Your task to perform on an android device: move a message to another label in the gmail app Image 0: 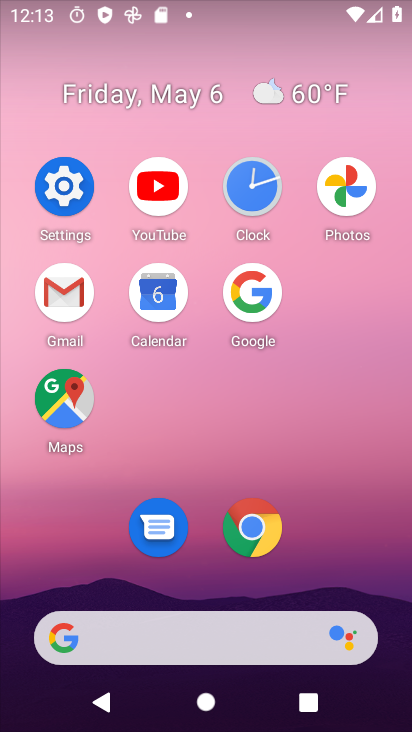
Step 0: click (82, 293)
Your task to perform on an android device: move a message to another label in the gmail app Image 1: 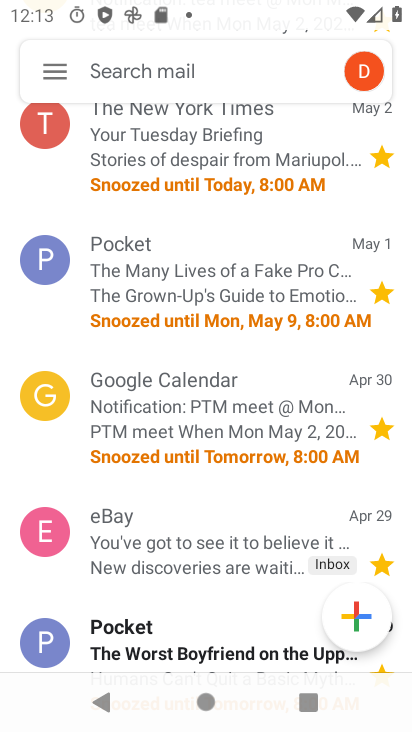
Step 1: click (53, 85)
Your task to perform on an android device: move a message to another label in the gmail app Image 2: 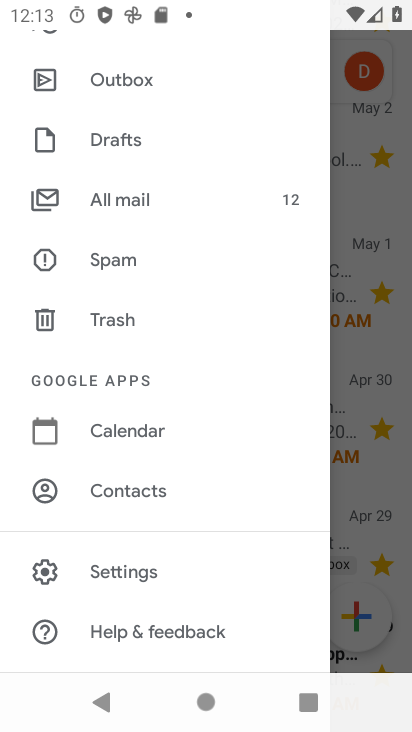
Step 2: click (140, 203)
Your task to perform on an android device: move a message to another label in the gmail app Image 3: 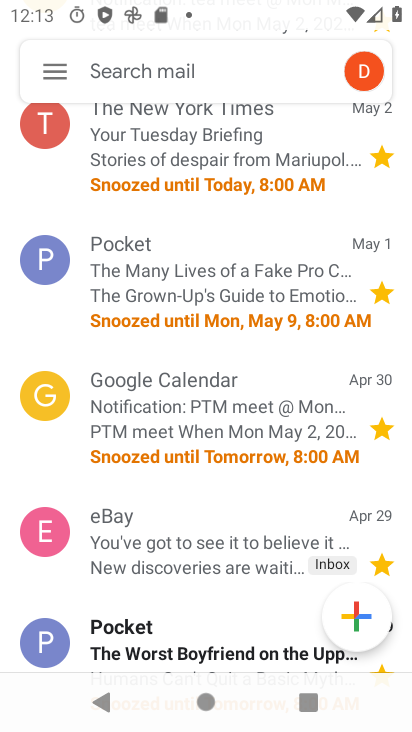
Step 3: click (173, 125)
Your task to perform on an android device: move a message to another label in the gmail app Image 4: 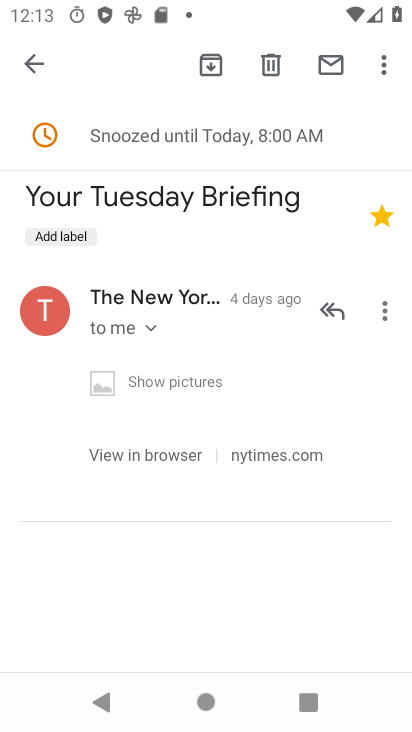
Step 4: click (374, 73)
Your task to perform on an android device: move a message to another label in the gmail app Image 5: 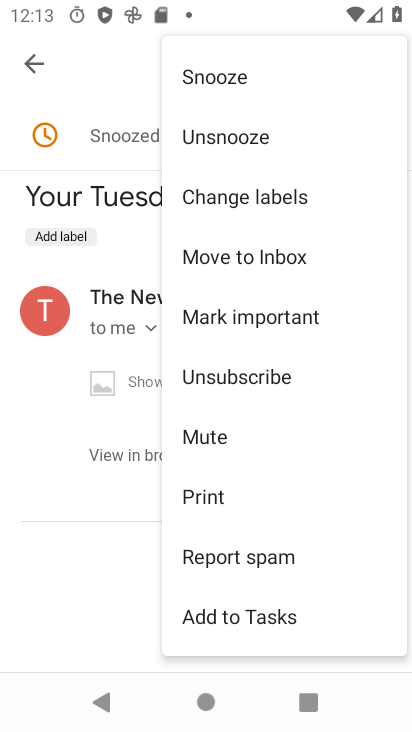
Step 5: click (313, 209)
Your task to perform on an android device: move a message to another label in the gmail app Image 6: 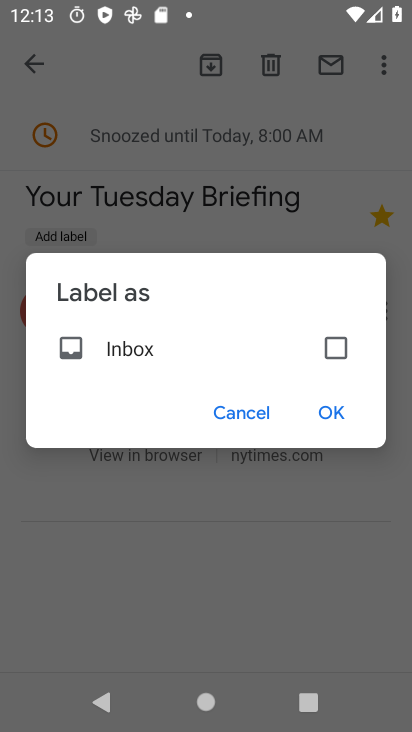
Step 6: click (324, 348)
Your task to perform on an android device: move a message to another label in the gmail app Image 7: 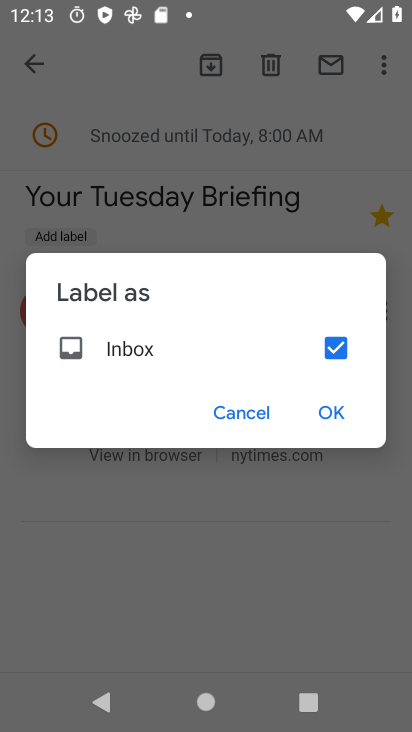
Step 7: click (342, 410)
Your task to perform on an android device: move a message to another label in the gmail app Image 8: 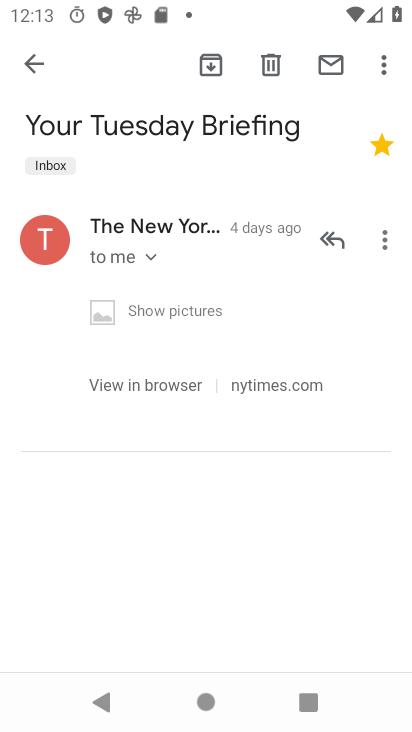
Step 8: task complete